Your task to perform on an android device: Do I have any events this weekend? Image 0: 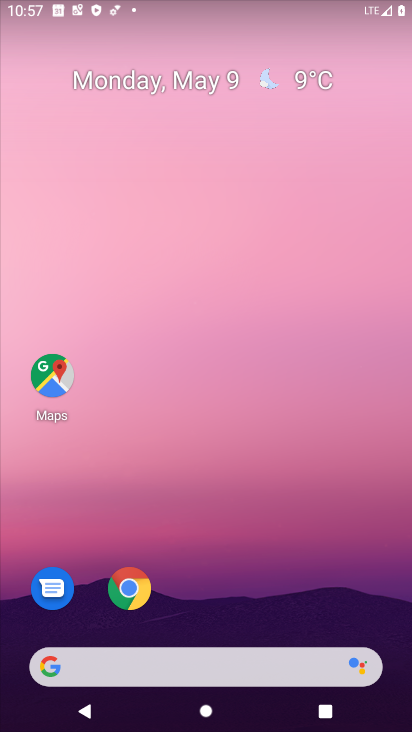
Step 0: drag from (172, 665) to (271, 76)
Your task to perform on an android device: Do I have any events this weekend? Image 1: 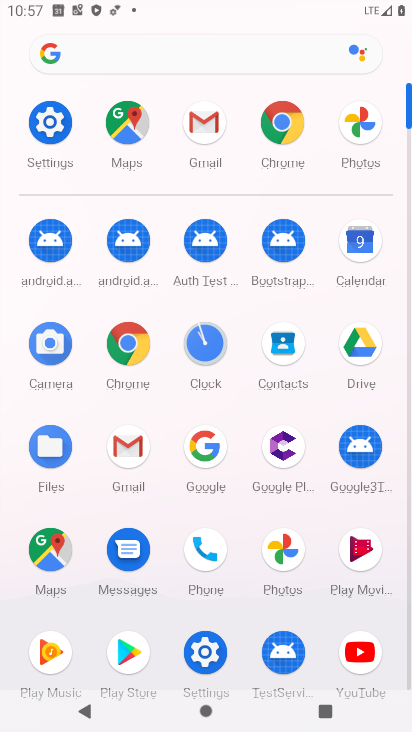
Step 1: click (366, 253)
Your task to perform on an android device: Do I have any events this weekend? Image 2: 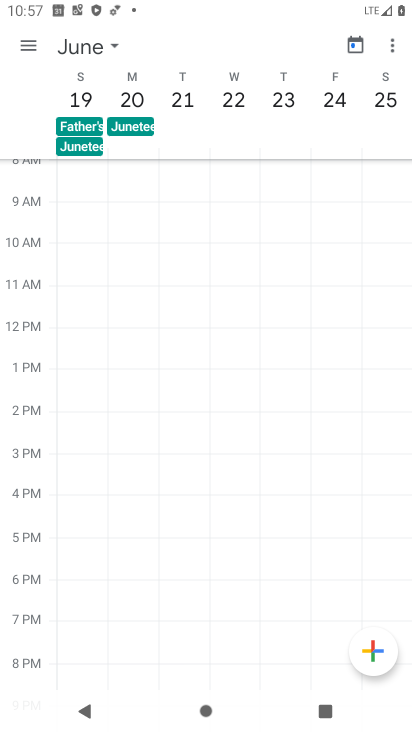
Step 2: click (78, 40)
Your task to perform on an android device: Do I have any events this weekend? Image 3: 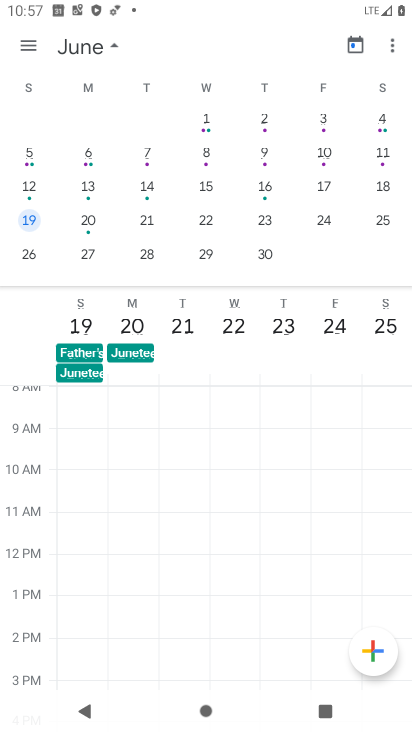
Step 3: drag from (168, 175) to (388, 170)
Your task to perform on an android device: Do I have any events this weekend? Image 4: 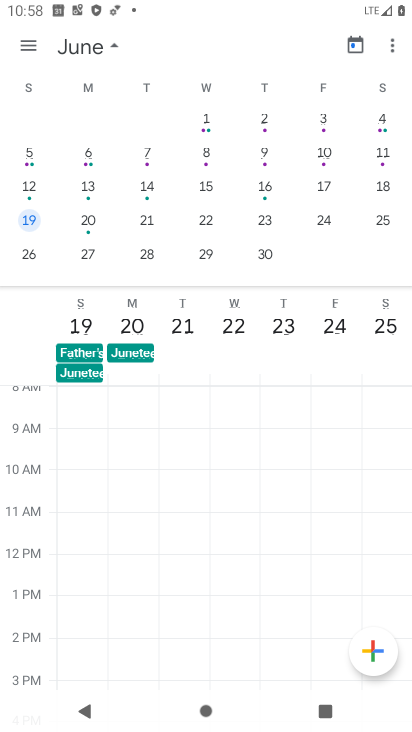
Step 4: drag from (175, 181) to (411, 192)
Your task to perform on an android device: Do I have any events this weekend? Image 5: 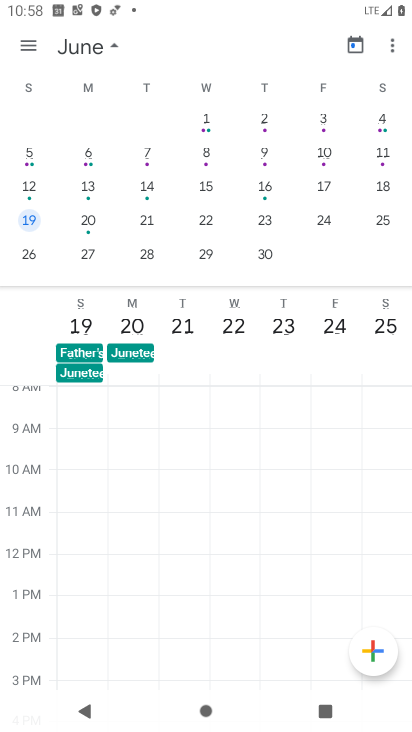
Step 5: click (115, 45)
Your task to perform on an android device: Do I have any events this weekend? Image 6: 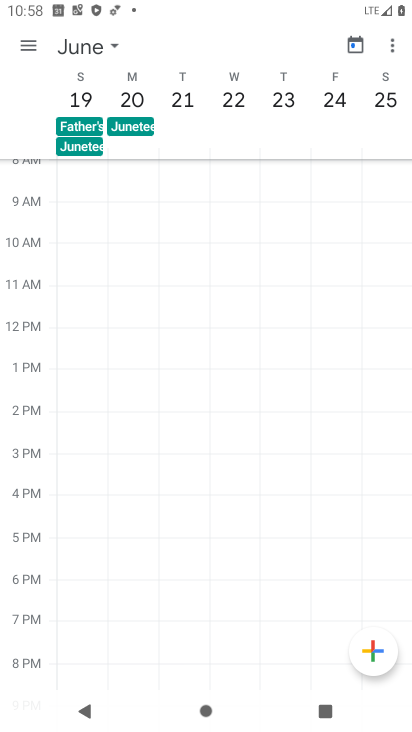
Step 6: click (96, 47)
Your task to perform on an android device: Do I have any events this weekend? Image 7: 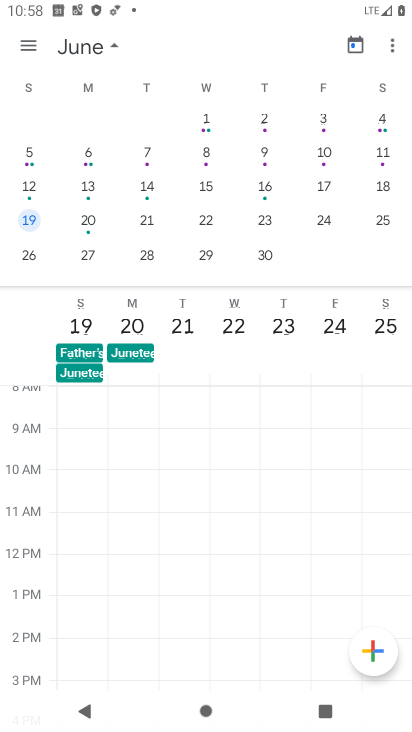
Step 7: click (92, 47)
Your task to perform on an android device: Do I have any events this weekend? Image 8: 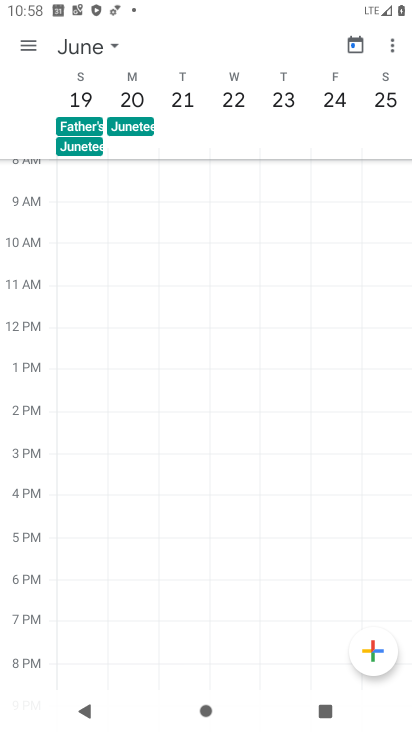
Step 8: click (356, 47)
Your task to perform on an android device: Do I have any events this weekend? Image 9: 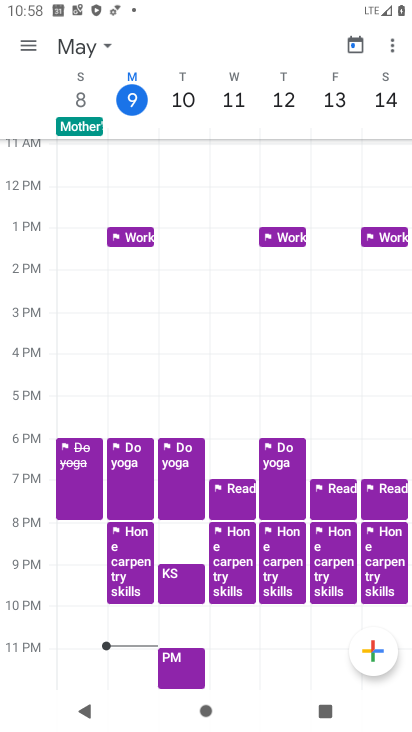
Step 9: click (84, 39)
Your task to perform on an android device: Do I have any events this weekend? Image 10: 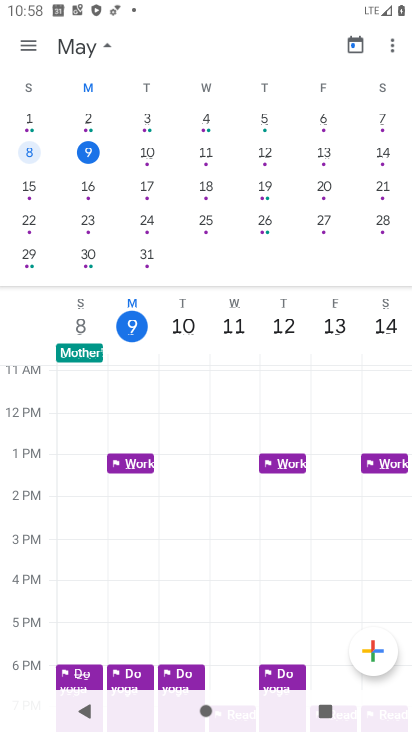
Step 10: click (388, 154)
Your task to perform on an android device: Do I have any events this weekend? Image 11: 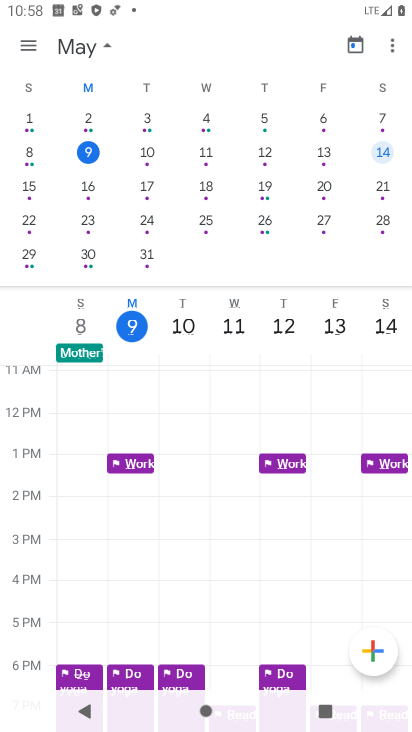
Step 11: click (35, 44)
Your task to perform on an android device: Do I have any events this weekend? Image 12: 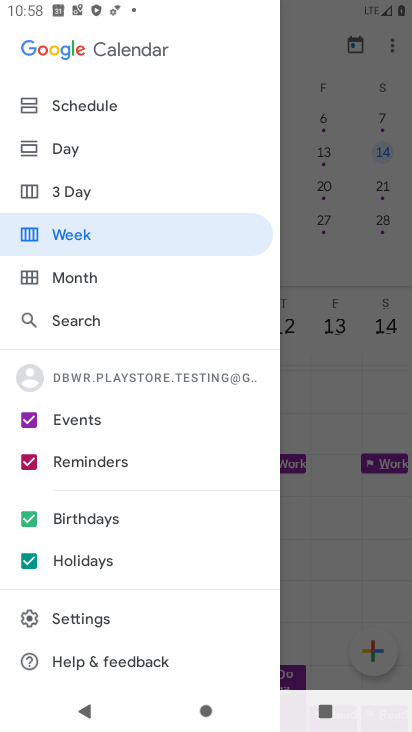
Step 12: click (74, 159)
Your task to perform on an android device: Do I have any events this weekend? Image 13: 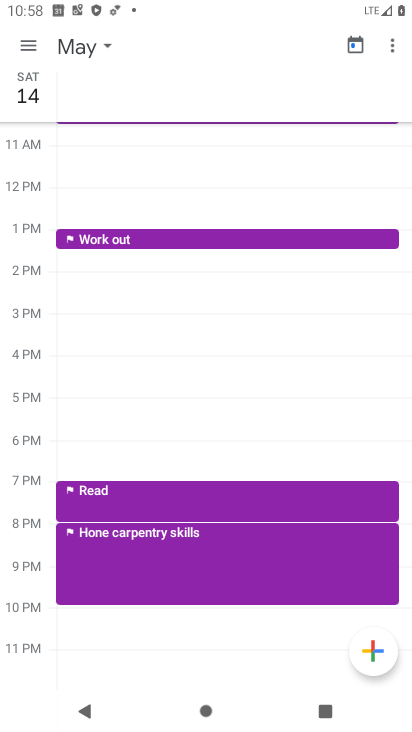
Step 13: click (25, 45)
Your task to perform on an android device: Do I have any events this weekend? Image 14: 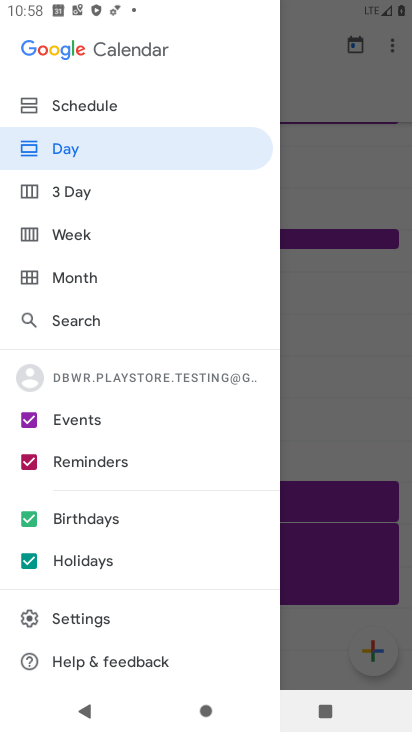
Step 14: click (95, 103)
Your task to perform on an android device: Do I have any events this weekend? Image 15: 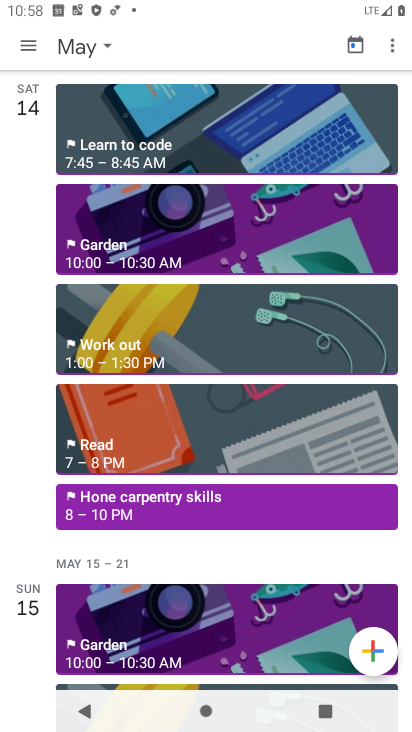
Step 15: click (162, 222)
Your task to perform on an android device: Do I have any events this weekend? Image 16: 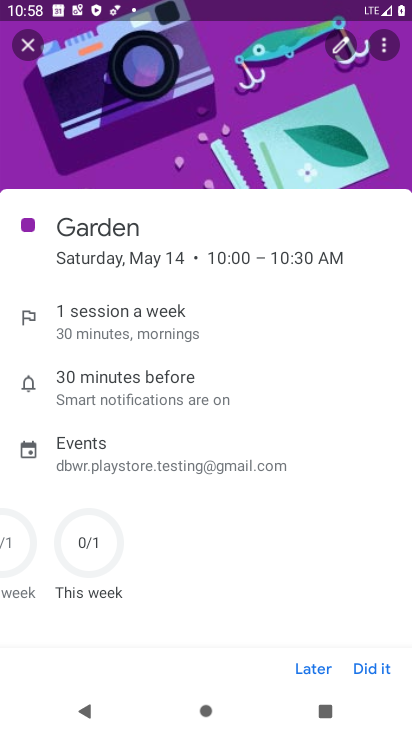
Step 16: task complete